Your task to perform on an android device: delete the emails in spam in the gmail app Image 0: 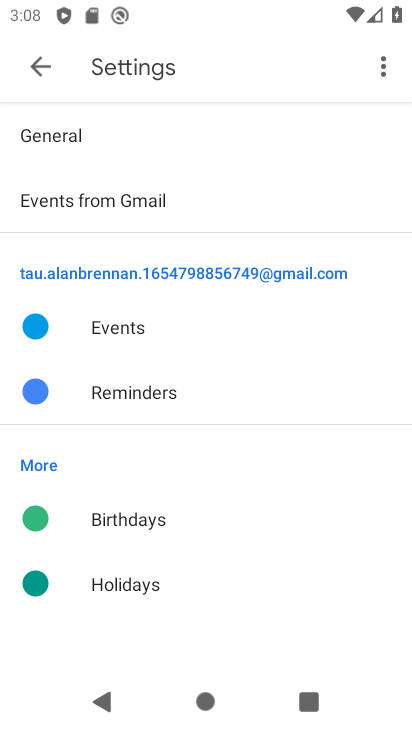
Step 0: press home button
Your task to perform on an android device: delete the emails in spam in the gmail app Image 1: 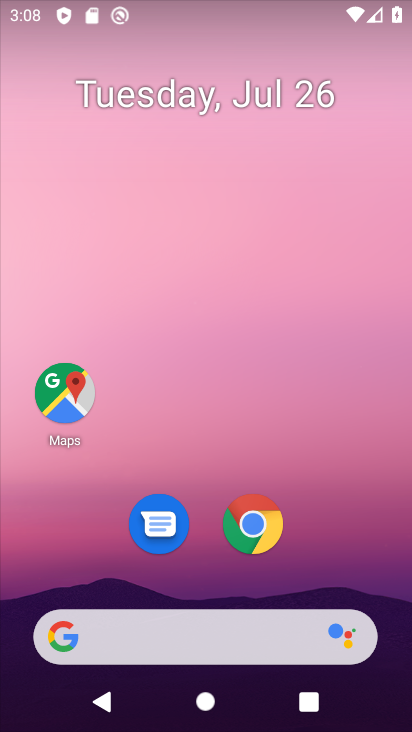
Step 1: drag from (319, 583) to (363, 50)
Your task to perform on an android device: delete the emails in spam in the gmail app Image 2: 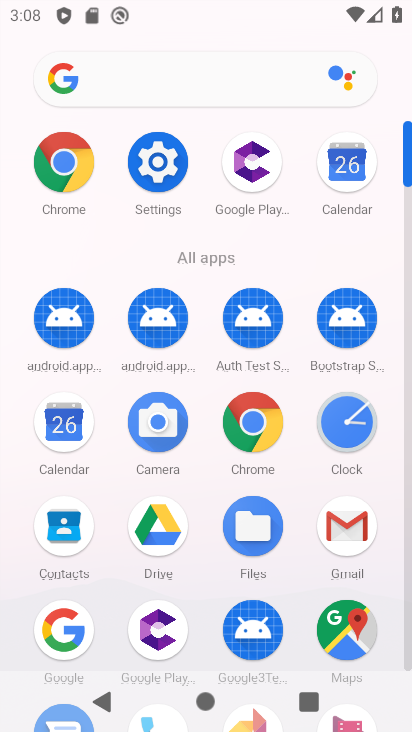
Step 2: click (349, 518)
Your task to perform on an android device: delete the emails in spam in the gmail app Image 3: 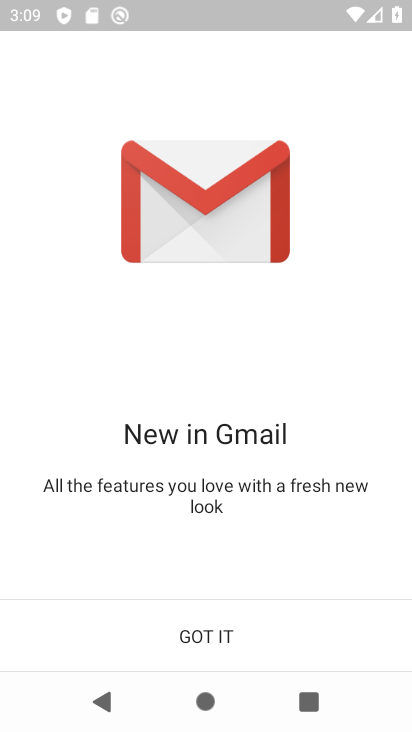
Step 3: click (224, 628)
Your task to perform on an android device: delete the emails in spam in the gmail app Image 4: 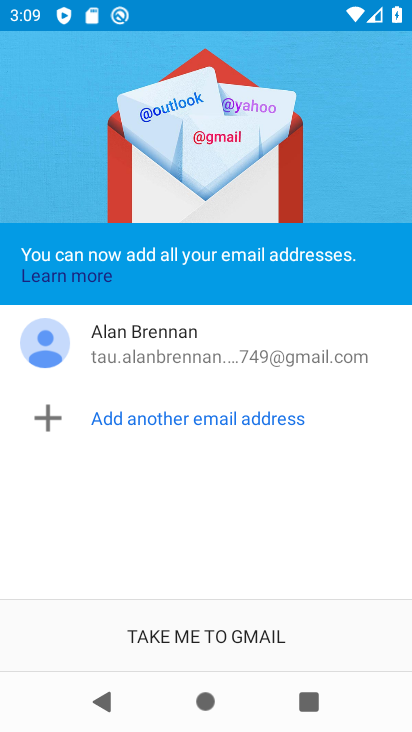
Step 4: click (224, 629)
Your task to perform on an android device: delete the emails in spam in the gmail app Image 5: 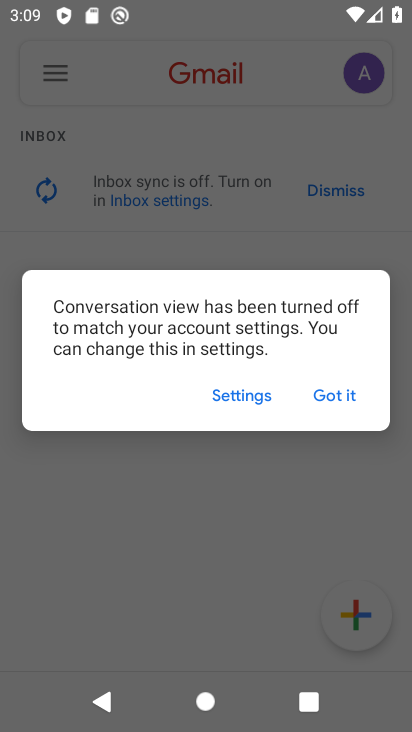
Step 5: click (338, 393)
Your task to perform on an android device: delete the emails in spam in the gmail app Image 6: 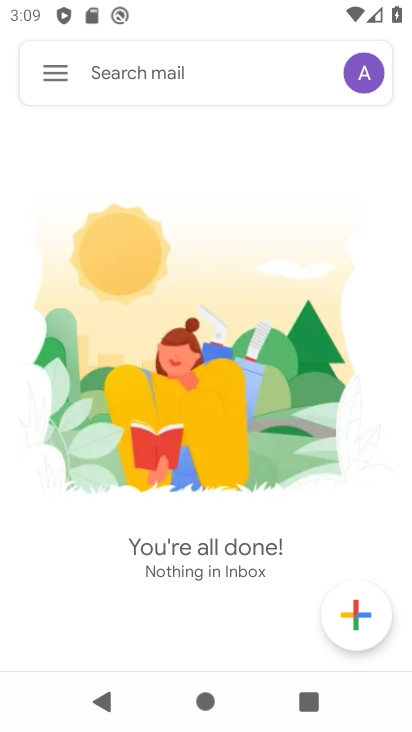
Step 6: click (60, 71)
Your task to perform on an android device: delete the emails in spam in the gmail app Image 7: 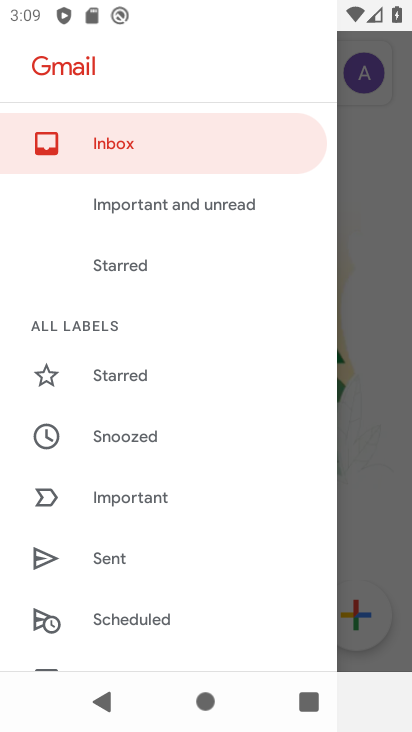
Step 7: drag from (160, 539) to (278, 45)
Your task to perform on an android device: delete the emails in spam in the gmail app Image 8: 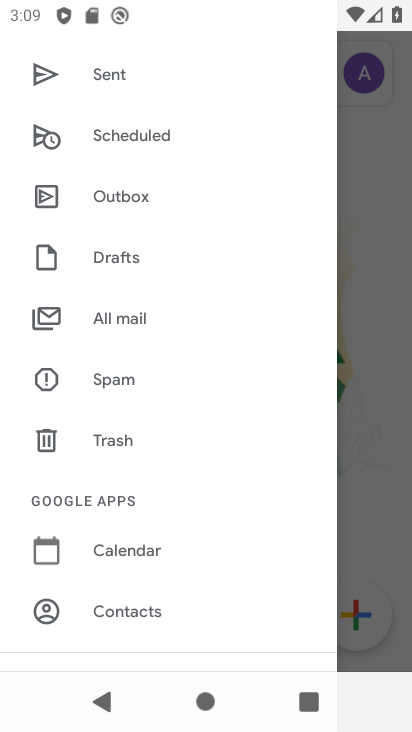
Step 8: click (125, 378)
Your task to perform on an android device: delete the emails in spam in the gmail app Image 9: 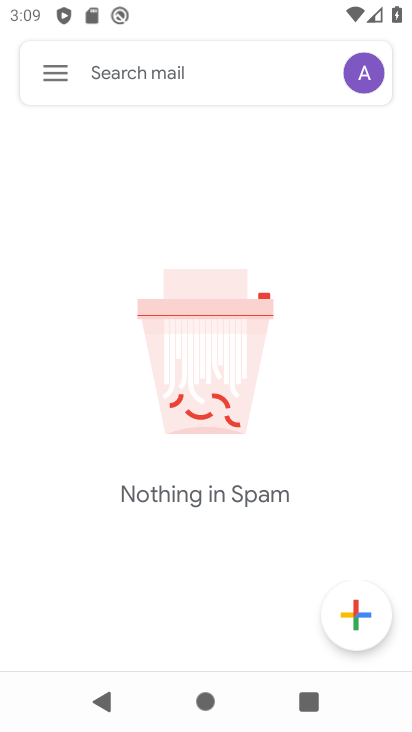
Step 9: task complete